Your task to perform on an android device: Go to Android settings Image 0: 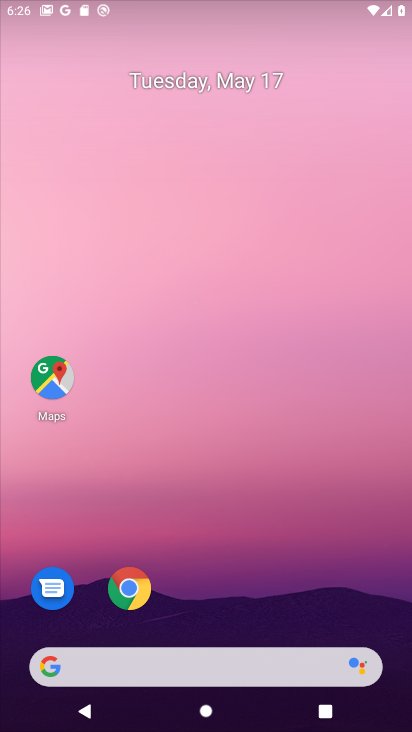
Step 0: drag from (393, 628) to (300, 61)
Your task to perform on an android device: Go to Android settings Image 1: 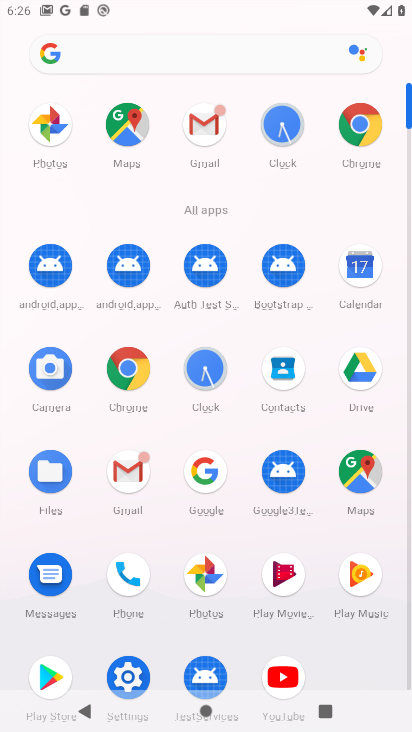
Step 1: click (138, 668)
Your task to perform on an android device: Go to Android settings Image 2: 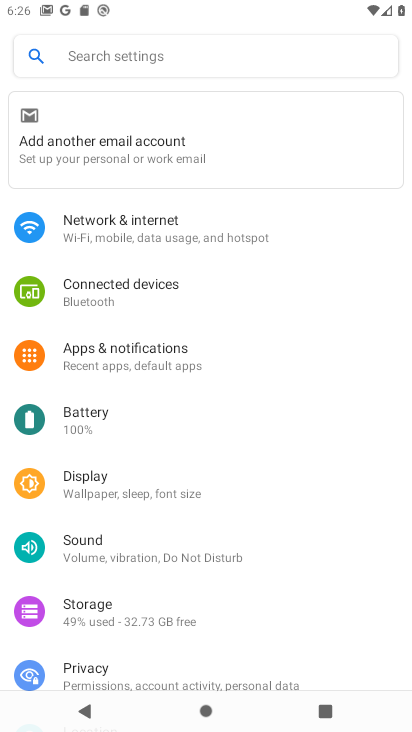
Step 2: drag from (165, 625) to (151, 33)
Your task to perform on an android device: Go to Android settings Image 3: 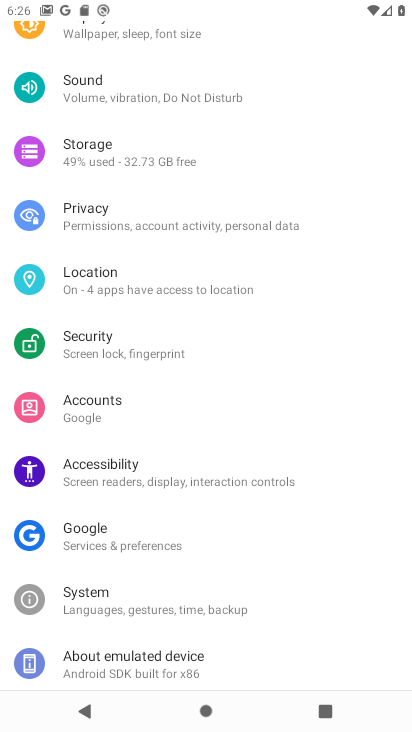
Step 3: drag from (136, 624) to (178, 81)
Your task to perform on an android device: Go to Android settings Image 4: 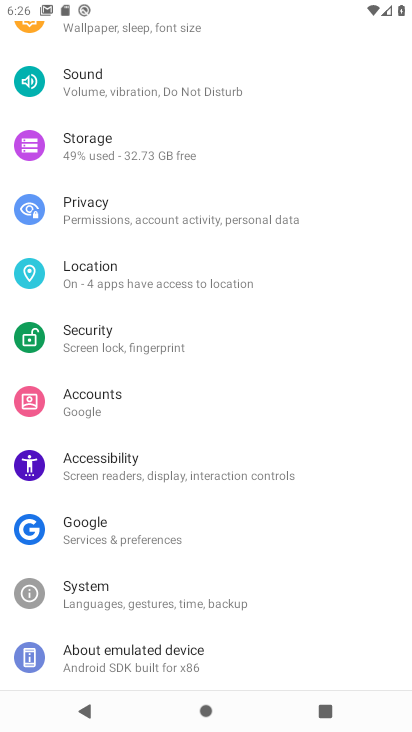
Step 4: click (199, 654)
Your task to perform on an android device: Go to Android settings Image 5: 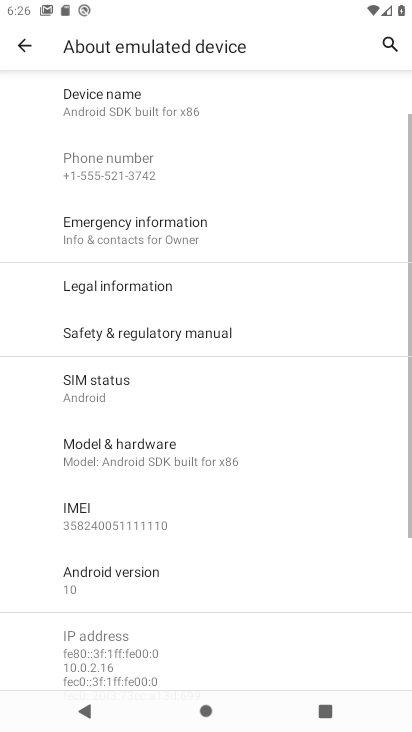
Step 5: click (99, 588)
Your task to perform on an android device: Go to Android settings Image 6: 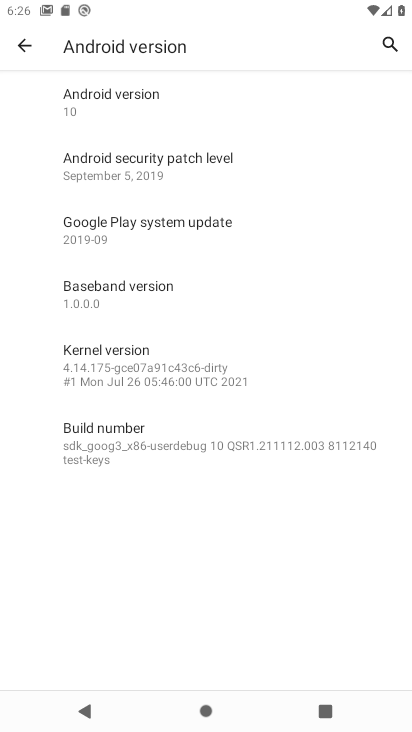
Step 6: task complete